Your task to perform on an android device: Open Google Maps Image 0: 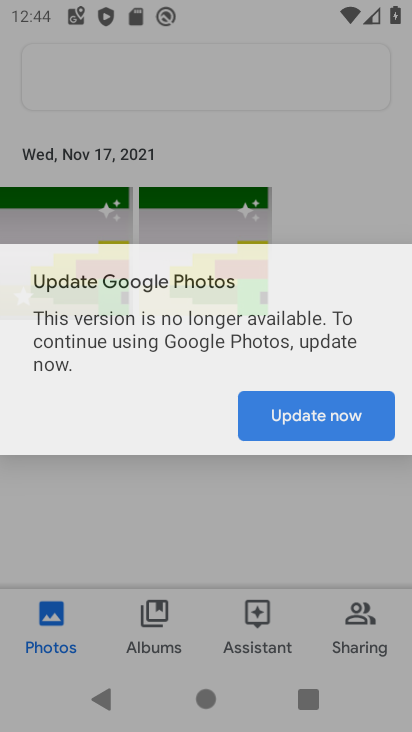
Step 0: press home button
Your task to perform on an android device: Open Google Maps Image 1: 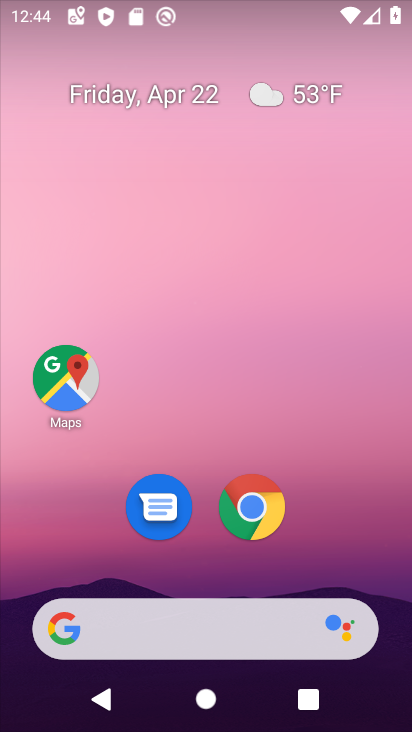
Step 1: click (85, 375)
Your task to perform on an android device: Open Google Maps Image 2: 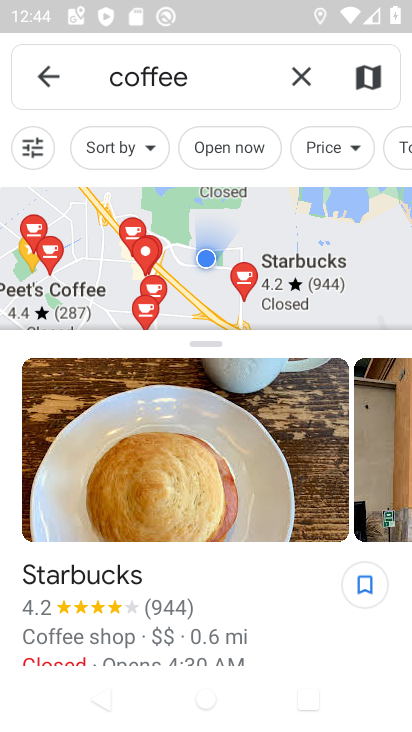
Step 2: task complete